Your task to perform on an android device: Open accessibility settings Image 0: 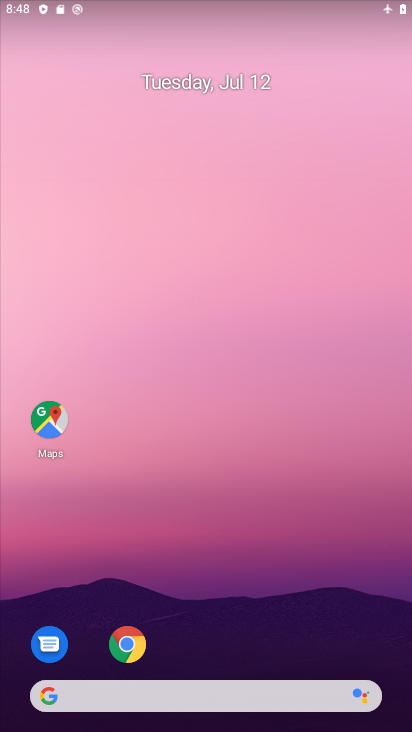
Step 0: drag from (205, 655) to (220, 168)
Your task to perform on an android device: Open accessibility settings Image 1: 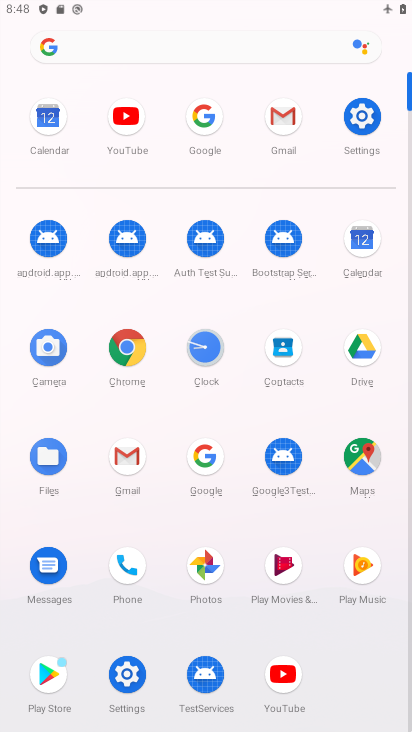
Step 1: click (339, 126)
Your task to perform on an android device: Open accessibility settings Image 2: 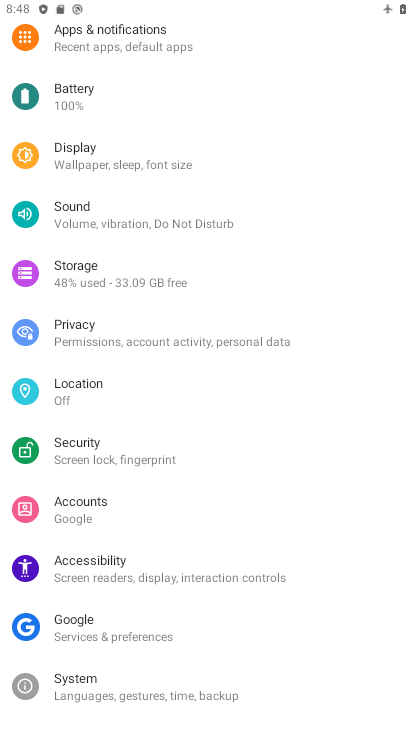
Step 2: click (147, 553)
Your task to perform on an android device: Open accessibility settings Image 3: 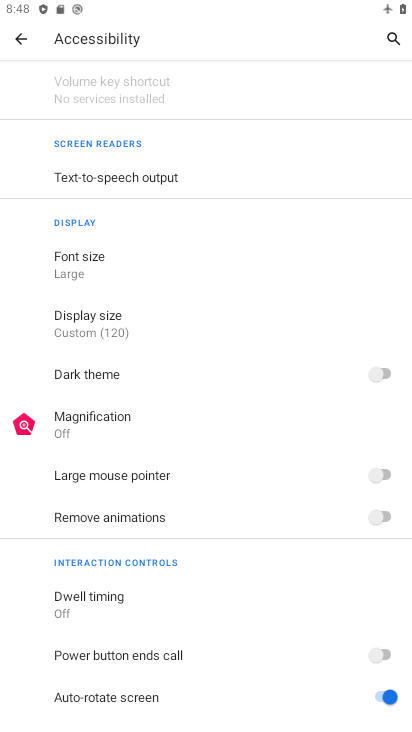
Step 3: task complete